Your task to perform on an android device: Open battery settings Image 0: 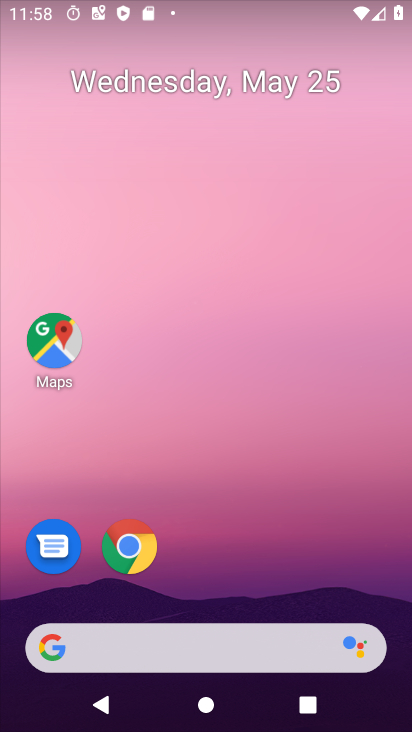
Step 0: drag from (259, 592) to (239, 10)
Your task to perform on an android device: Open battery settings Image 1: 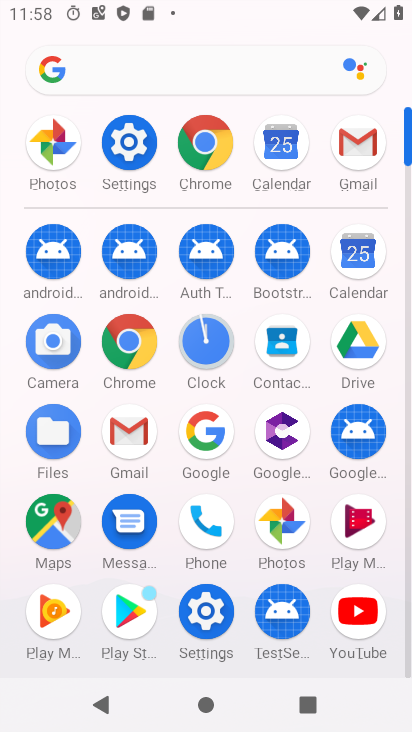
Step 1: click (190, 619)
Your task to perform on an android device: Open battery settings Image 2: 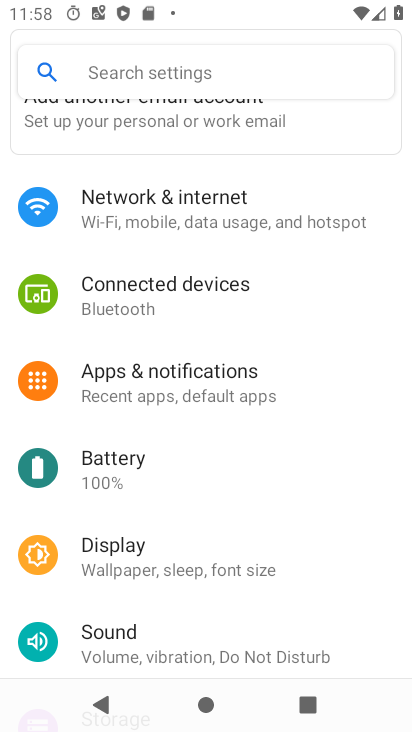
Step 2: click (95, 470)
Your task to perform on an android device: Open battery settings Image 3: 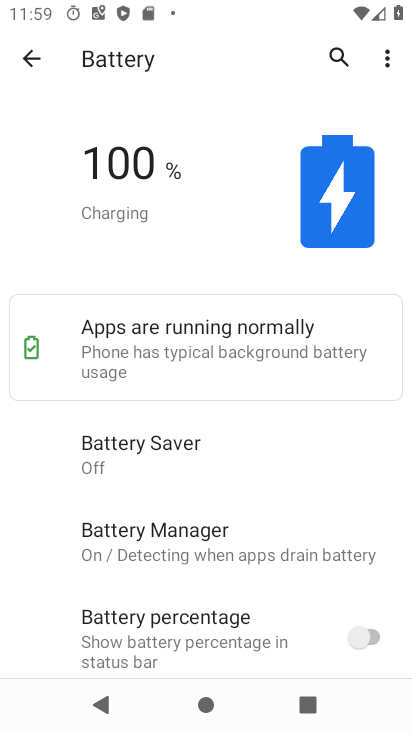
Step 3: task complete